Your task to perform on an android device: all mails in gmail Image 0: 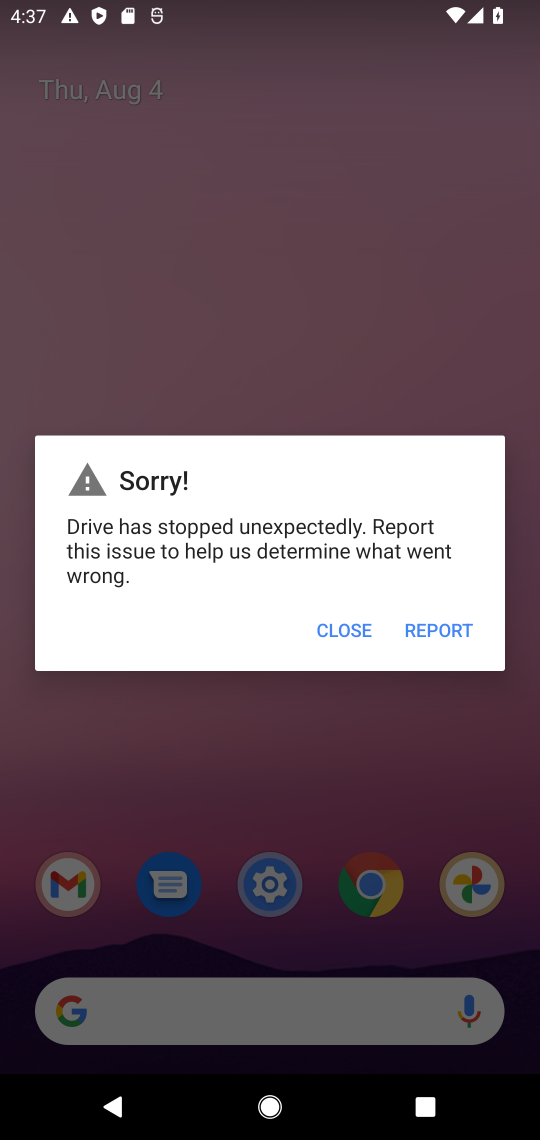
Step 0: press home button
Your task to perform on an android device: all mails in gmail Image 1: 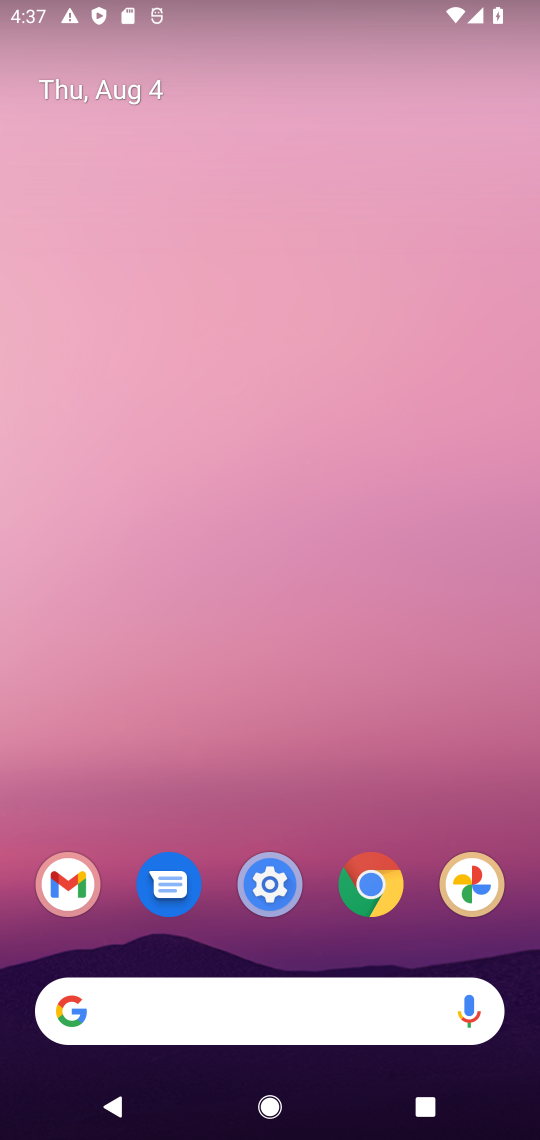
Step 1: click (65, 879)
Your task to perform on an android device: all mails in gmail Image 2: 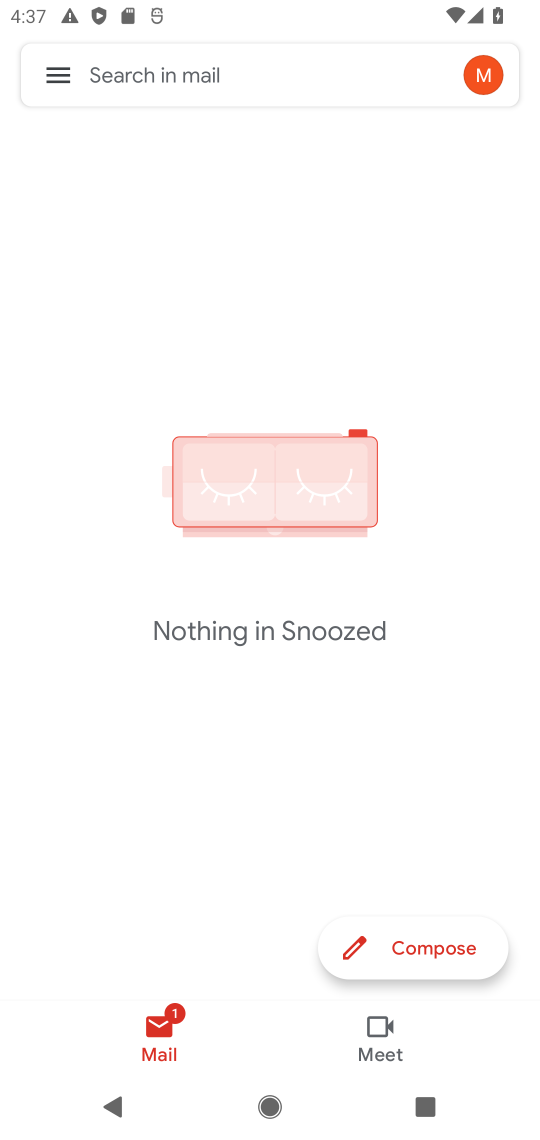
Step 2: click (64, 72)
Your task to perform on an android device: all mails in gmail Image 3: 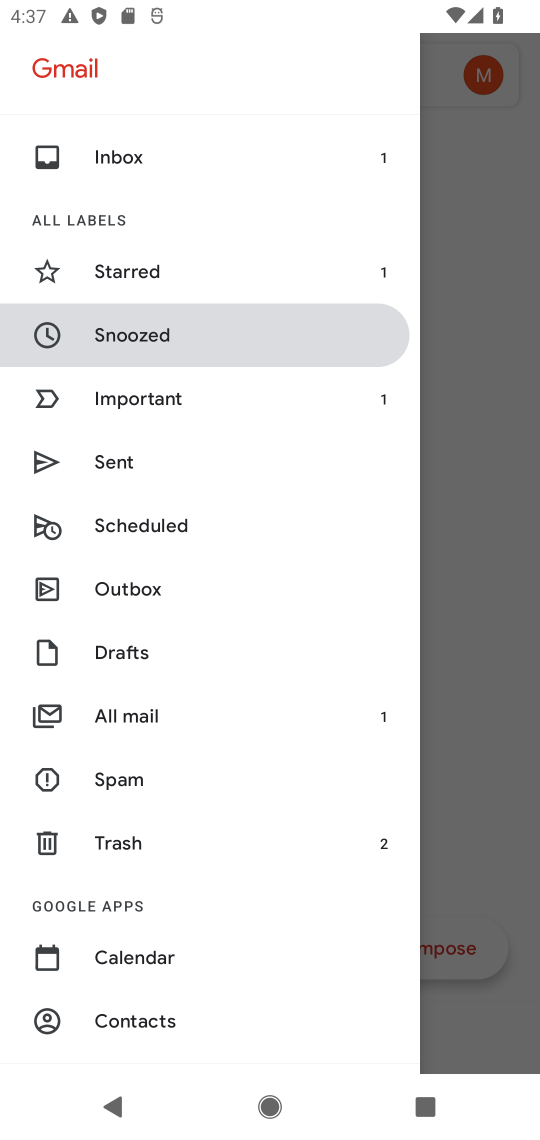
Step 3: click (207, 716)
Your task to perform on an android device: all mails in gmail Image 4: 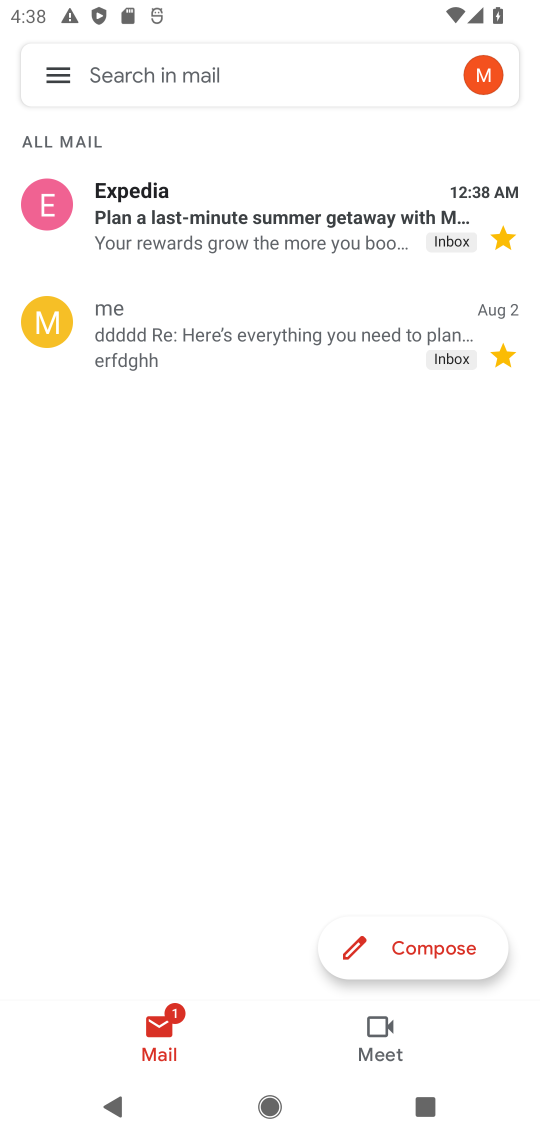
Step 4: task complete